Your task to perform on an android device: Go to wifi settings Image 0: 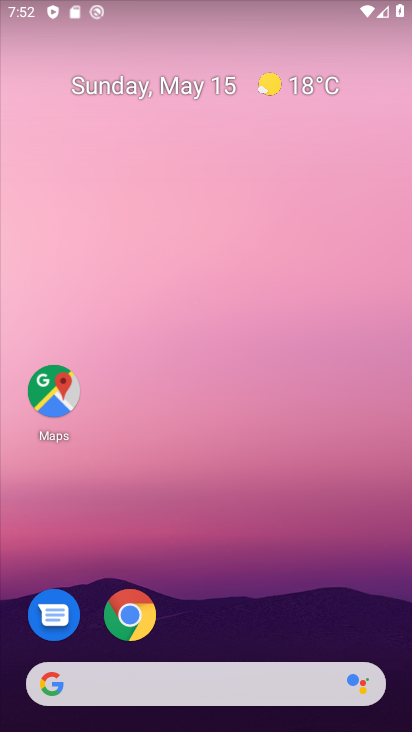
Step 0: drag from (307, 9) to (215, 660)
Your task to perform on an android device: Go to wifi settings Image 1: 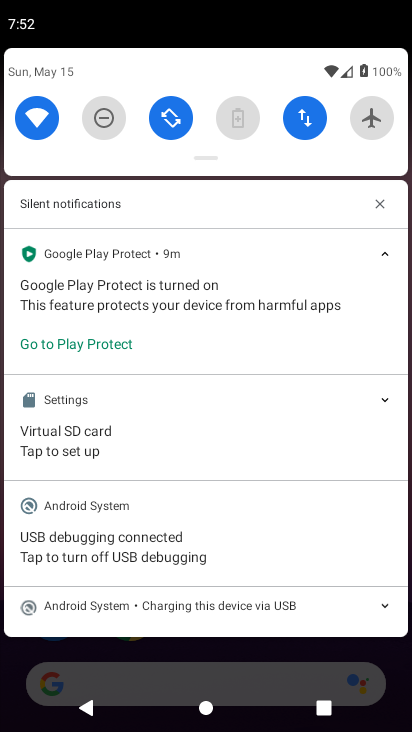
Step 1: click (23, 118)
Your task to perform on an android device: Go to wifi settings Image 2: 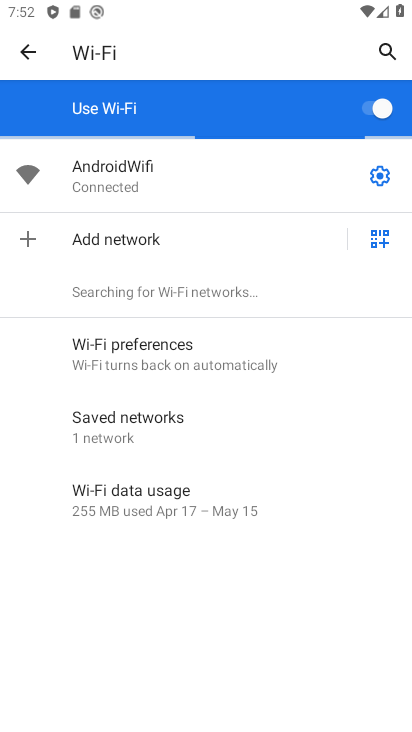
Step 2: click (380, 172)
Your task to perform on an android device: Go to wifi settings Image 3: 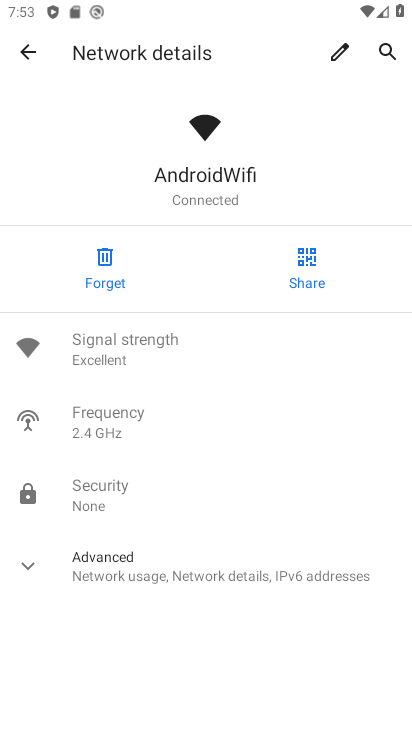
Step 3: task complete